Your task to perform on an android device: add a contact Image 0: 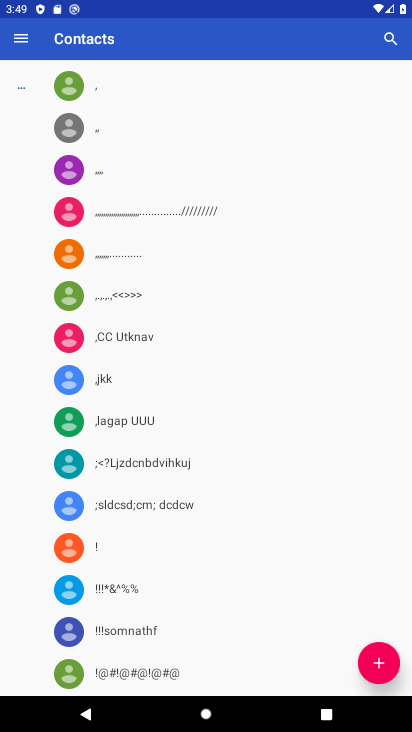
Step 0: click (379, 670)
Your task to perform on an android device: add a contact Image 1: 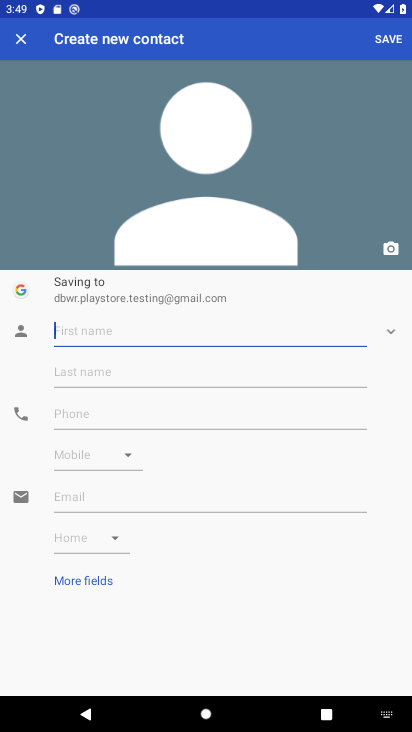
Step 1: type "hjgvjb"
Your task to perform on an android device: add a contact Image 2: 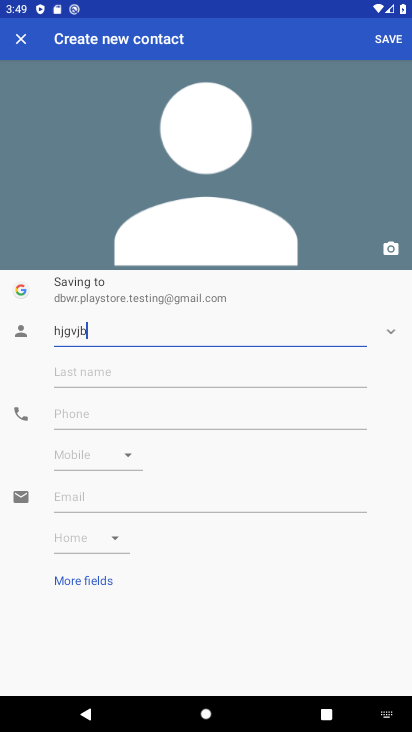
Step 2: click (194, 382)
Your task to perform on an android device: add a contact Image 3: 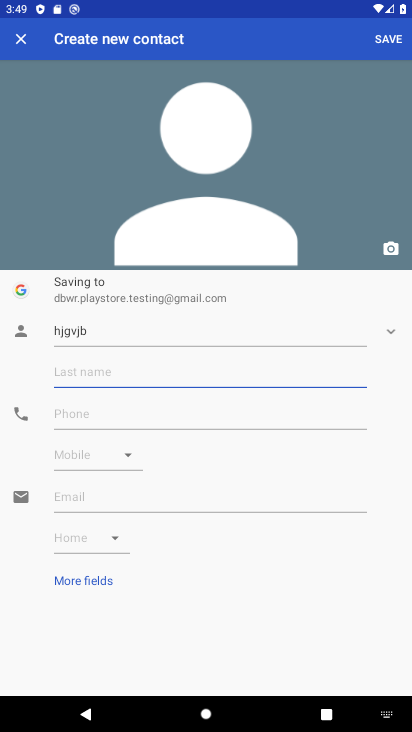
Step 3: click (273, 415)
Your task to perform on an android device: add a contact Image 4: 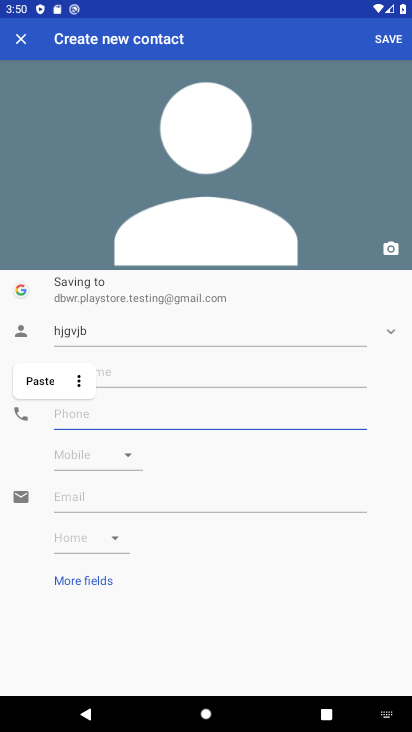
Step 4: type "896966"
Your task to perform on an android device: add a contact Image 5: 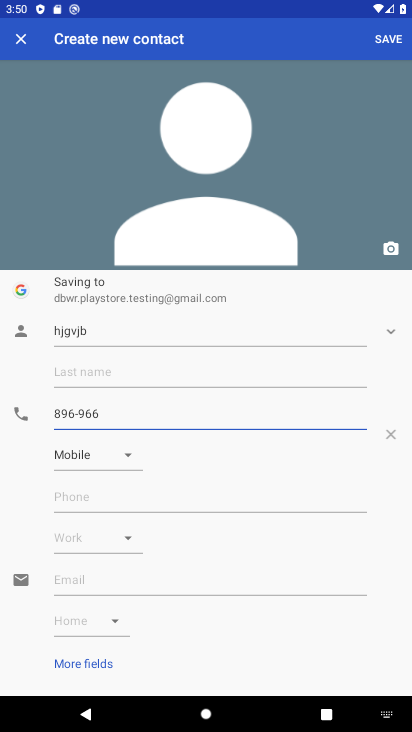
Step 5: click (390, 42)
Your task to perform on an android device: add a contact Image 6: 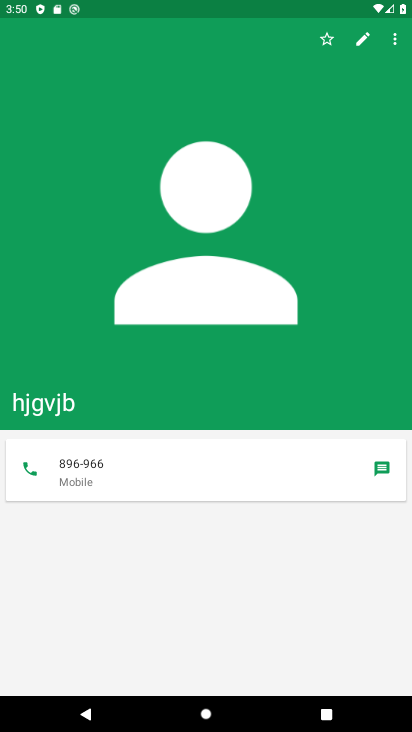
Step 6: task complete